Your task to perform on an android device: What's the weather going to be tomorrow? Image 0: 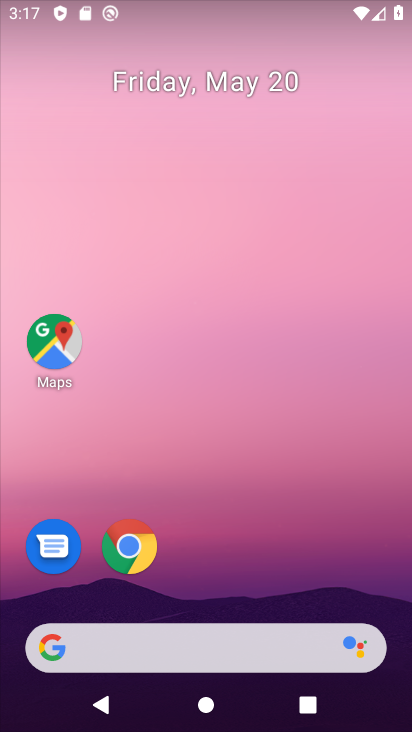
Step 0: drag from (245, 580) to (242, 33)
Your task to perform on an android device: What's the weather going to be tomorrow? Image 1: 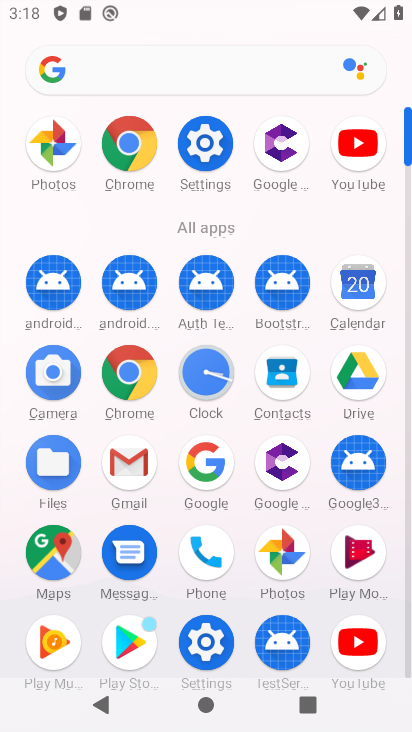
Step 1: click (205, 461)
Your task to perform on an android device: What's the weather going to be tomorrow? Image 2: 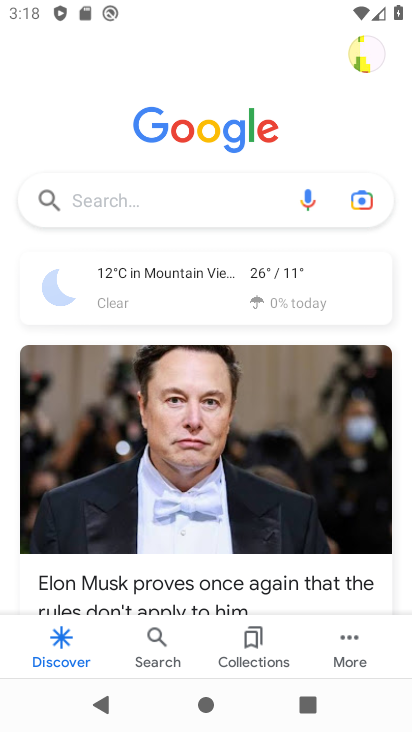
Step 2: click (197, 279)
Your task to perform on an android device: What's the weather going to be tomorrow? Image 3: 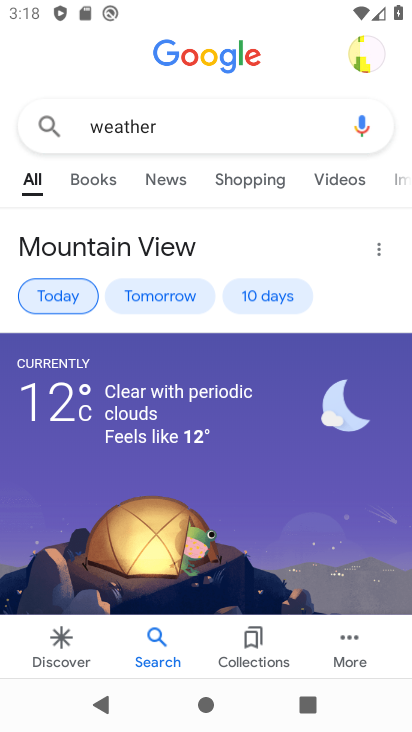
Step 3: click (158, 295)
Your task to perform on an android device: What's the weather going to be tomorrow? Image 4: 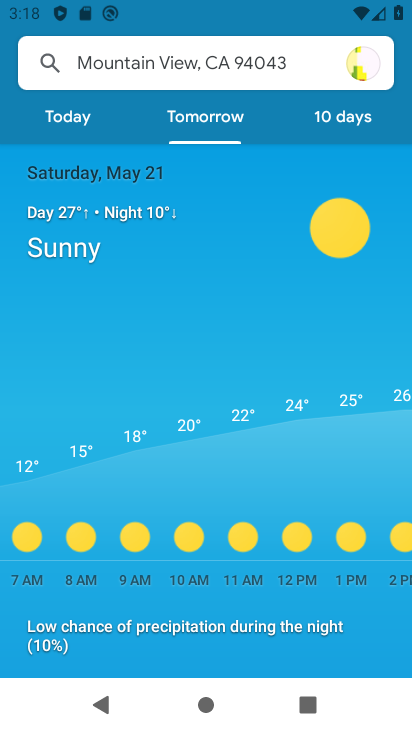
Step 4: task complete